Your task to perform on an android device: Open Android settings Image 0: 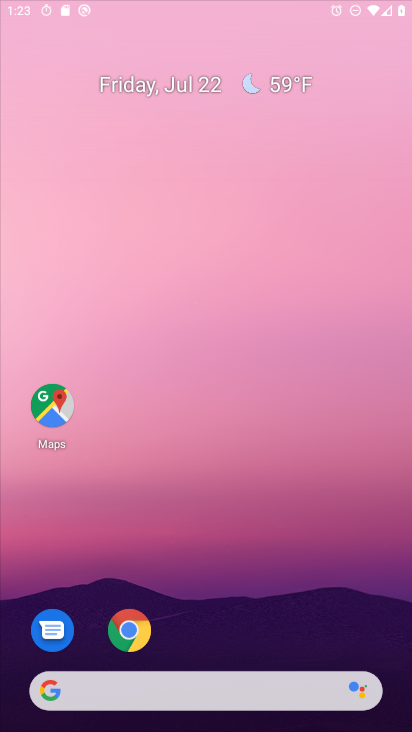
Step 0: press home button
Your task to perform on an android device: Open Android settings Image 1: 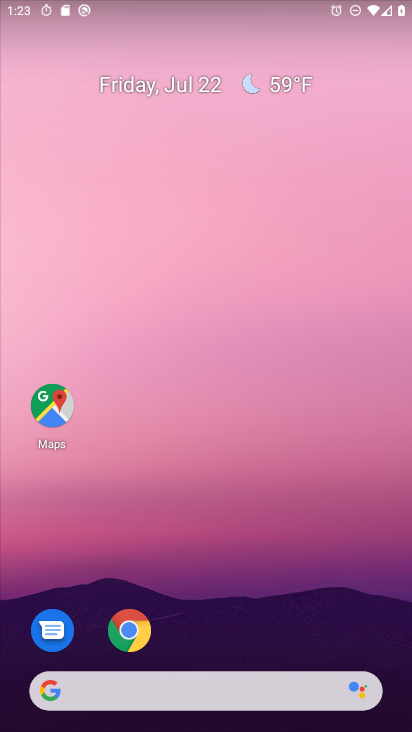
Step 1: drag from (222, 641) to (243, 88)
Your task to perform on an android device: Open Android settings Image 2: 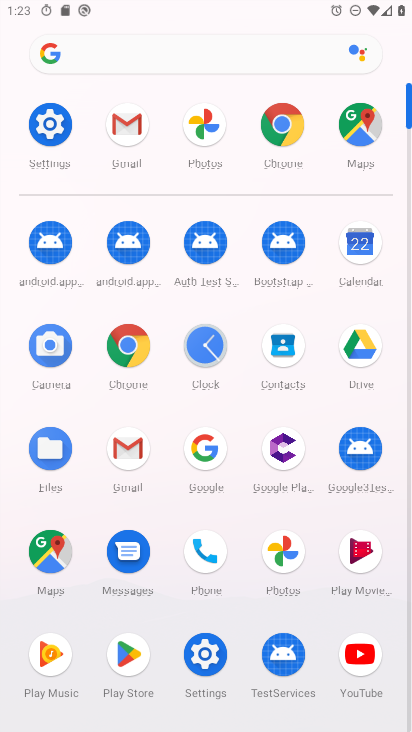
Step 2: click (44, 126)
Your task to perform on an android device: Open Android settings Image 3: 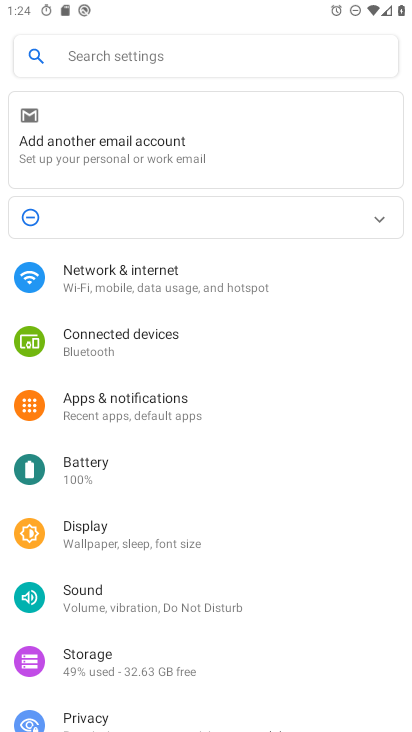
Step 3: task complete